Your task to perform on an android device: turn off smart reply in the gmail app Image 0: 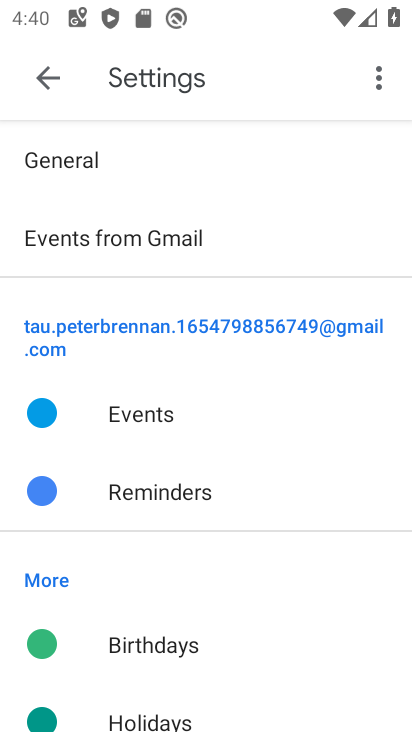
Step 0: press back button
Your task to perform on an android device: turn off smart reply in the gmail app Image 1: 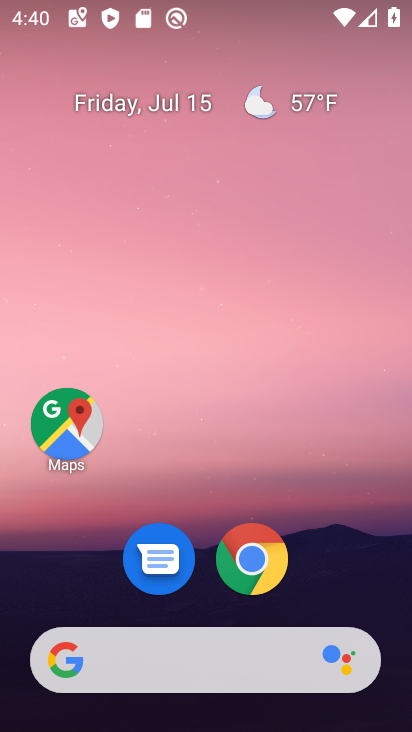
Step 1: drag from (88, 550) to (137, 0)
Your task to perform on an android device: turn off smart reply in the gmail app Image 2: 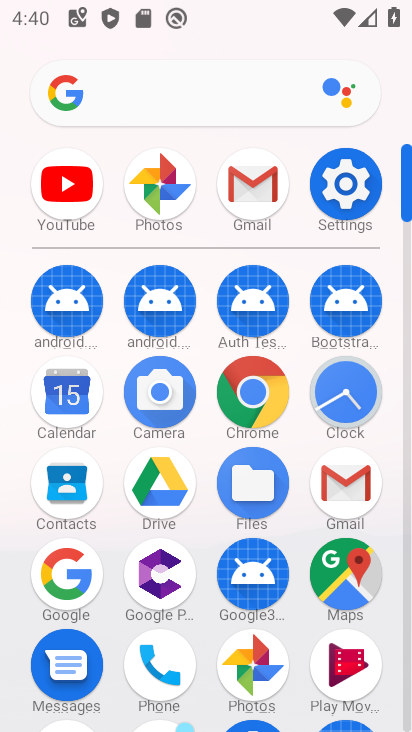
Step 2: click (254, 202)
Your task to perform on an android device: turn off smart reply in the gmail app Image 3: 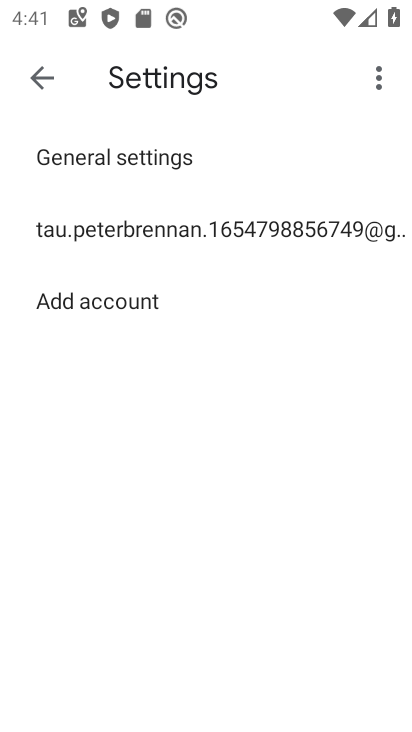
Step 3: click (80, 229)
Your task to perform on an android device: turn off smart reply in the gmail app Image 4: 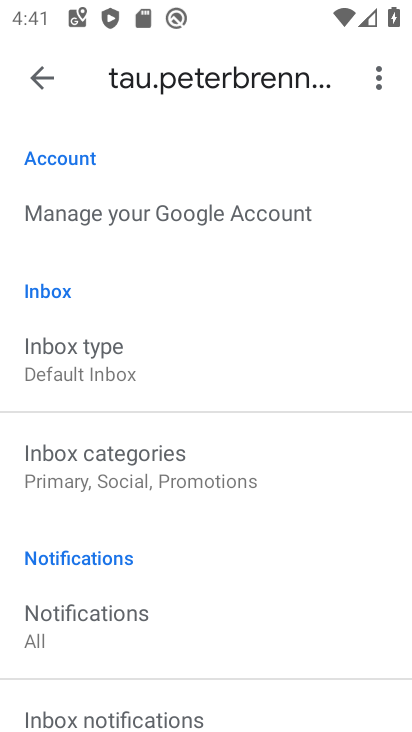
Step 4: drag from (164, 645) to (211, 93)
Your task to perform on an android device: turn off smart reply in the gmail app Image 5: 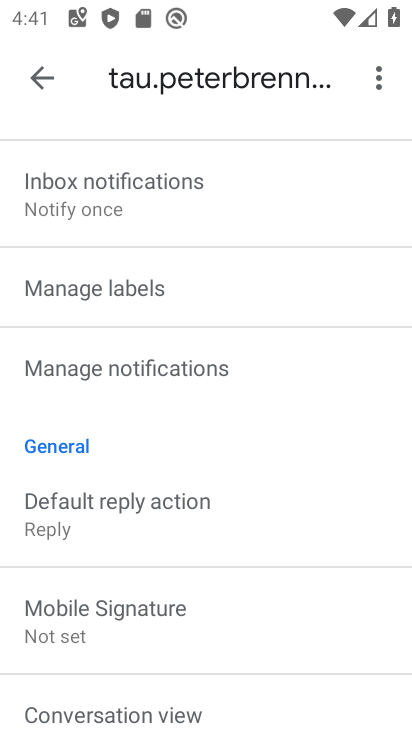
Step 5: drag from (110, 614) to (200, 91)
Your task to perform on an android device: turn off smart reply in the gmail app Image 6: 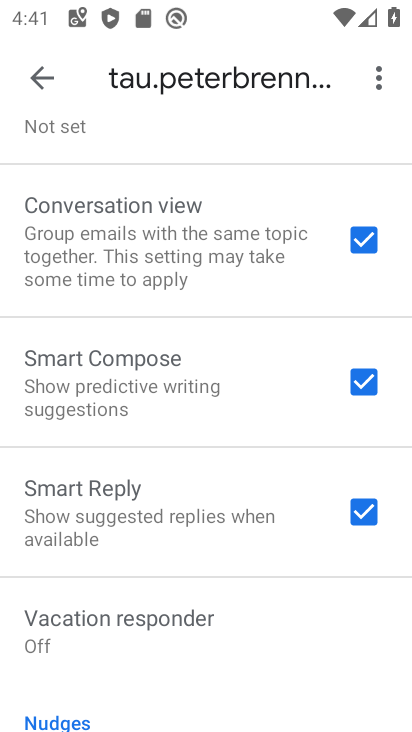
Step 6: click (362, 511)
Your task to perform on an android device: turn off smart reply in the gmail app Image 7: 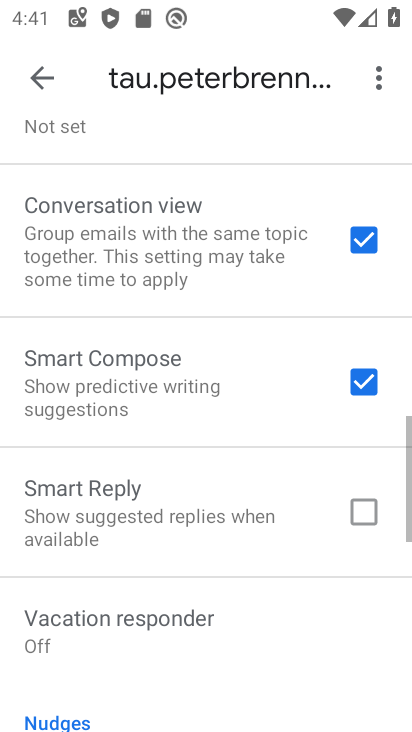
Step 7: task complete